Your task to perform on an android device: Open notification settings Image 0: 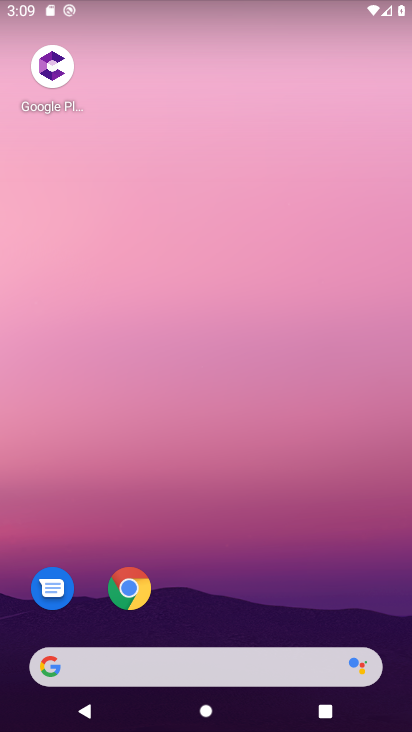
Step 0: drag from (340, 588) to (340, 106)
Your task to perform on an android device: Open notification settings Image 1: 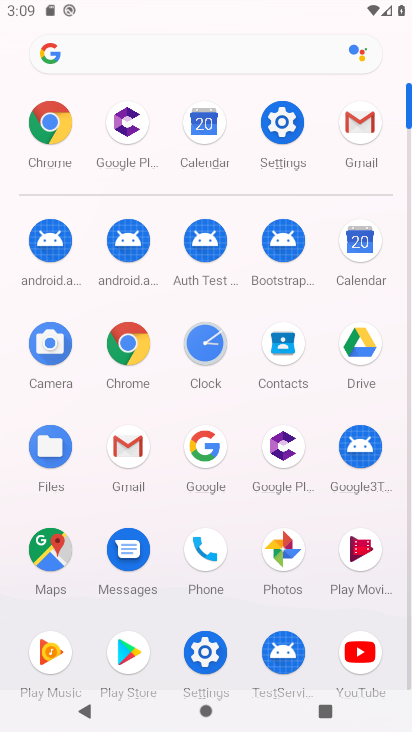
Step 1: click (279, 124)
Your task to perform on an android device: Open notification settings Image 2: 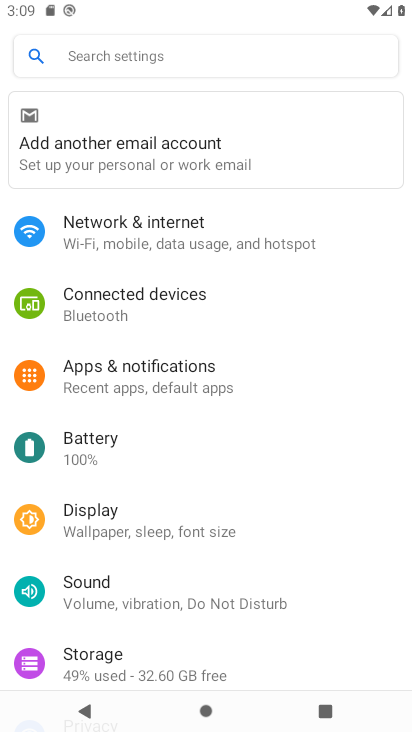
Step 2: drag from (340, 562) to (358, 360)
Your task to perform on an android device: Open notification settings Image 3: 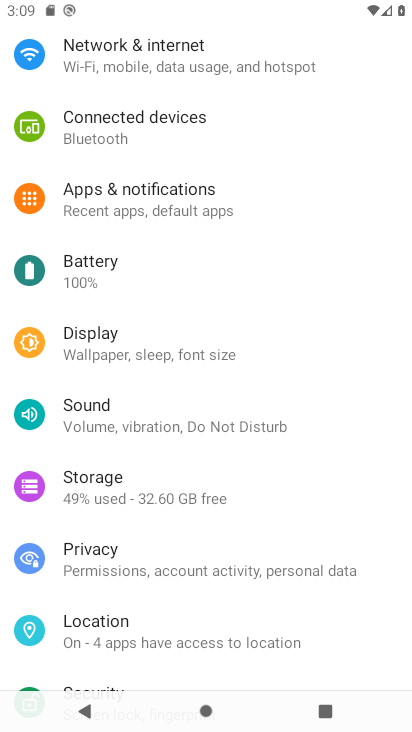
Step 3: drag from (383, 511) to (379, 367)
Your task to perform on an android device: Open notification settings Image 4: 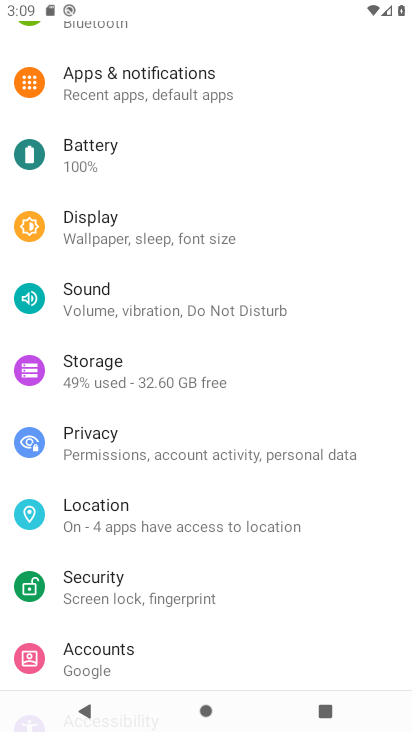
Step 4: drag from (340, 472) to (352, 322)
Your task to perform on an android device: Open notification settings Image 5: 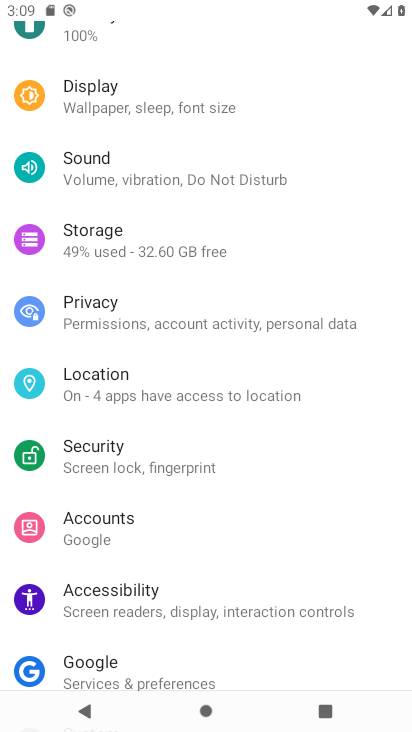
Step 5: drag from (334, 593) to (353, 381)
Your task to perform on an android device: Open notification settings Image 6: 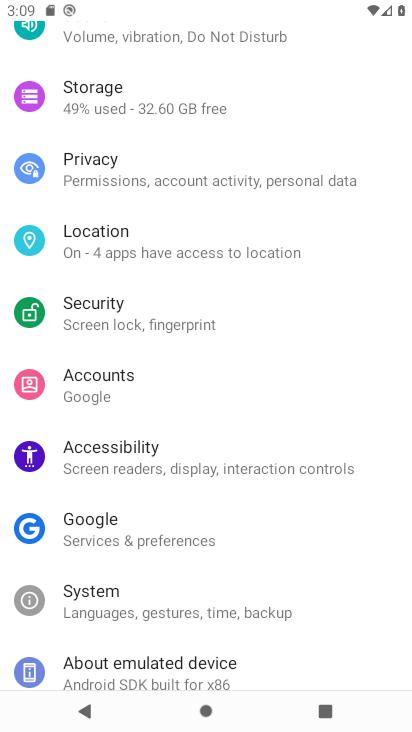
Step 6: drag from (343, 599) to (361, 350)
Your task to perform on an android device: Open notification settings Image 7: 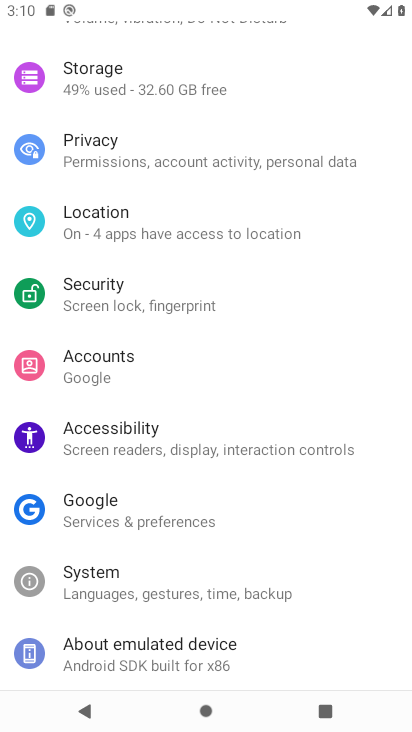
Step 7: drag from (349, 359) to (353, 587)
Your task to perform on an android device: Open notification settings Image 8: 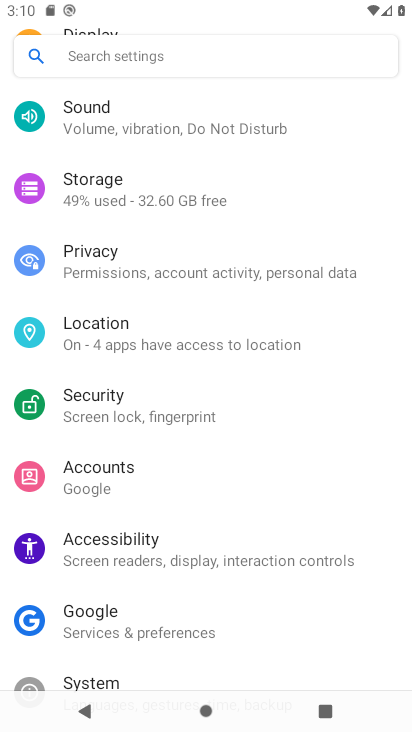
Step 8: drag from (370, 216) to (382, 382)
Your task to perform on an android device: Open notification settings Image 9: 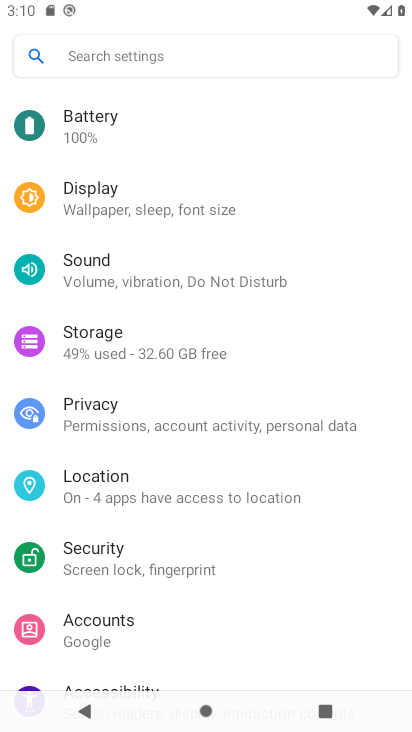
Step 9: drag from (362, 200) to (381, 417)
Your task to perform on an android device: Open notification settings Image 10: 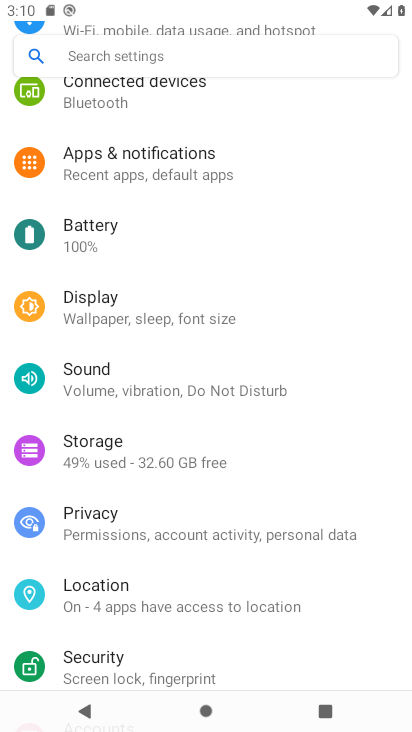
Step 10: drag from (315, 163) to (332, 373)
Your task to perform on an android device: Open notification settings Image 11: 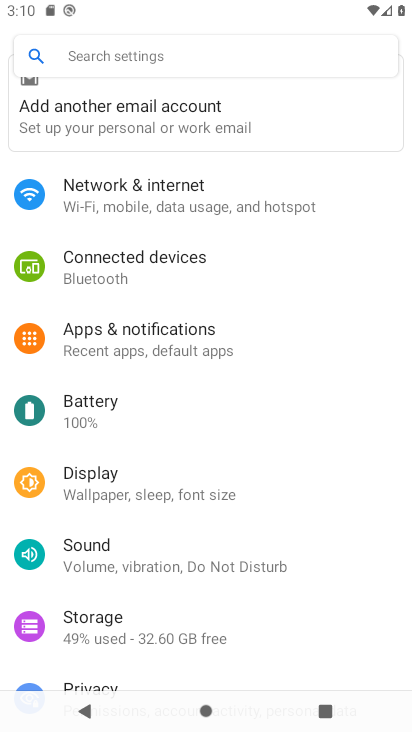
Step 11: click (162, 340)
Your task to perform on an android device: Open notification settings Image 12: 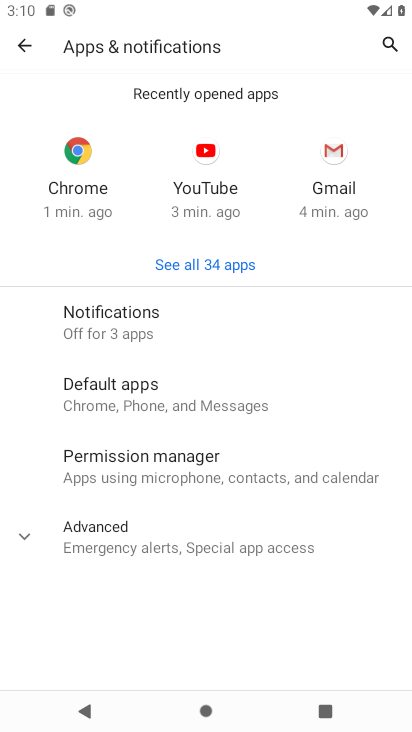
Step 12: click (131, 319)
Your task to perform on an android device: Open notification settings Image 13: 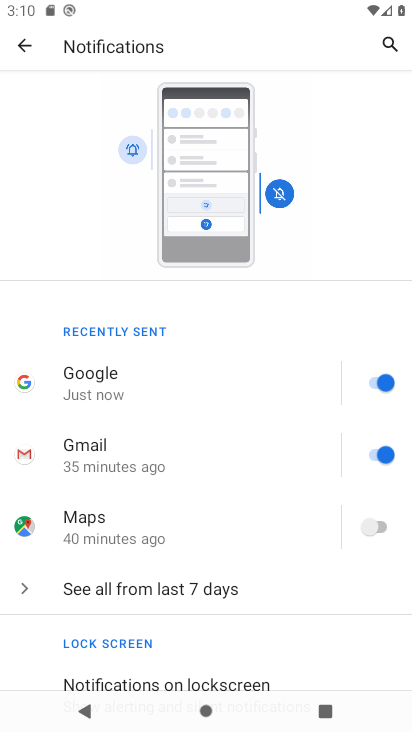
Step 13: task complete